Your task to perform on an android device: Go to Android settings Image 0: 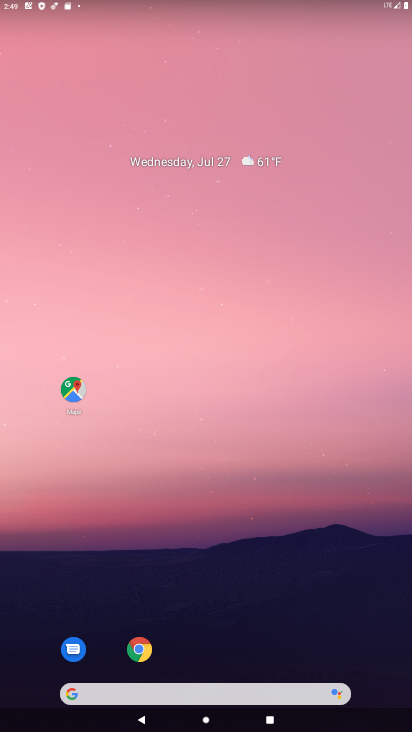
Step 0: drag from (176, 523) to (189, 141)
Your task to perform on an android device: Go to Android settings Image 1: 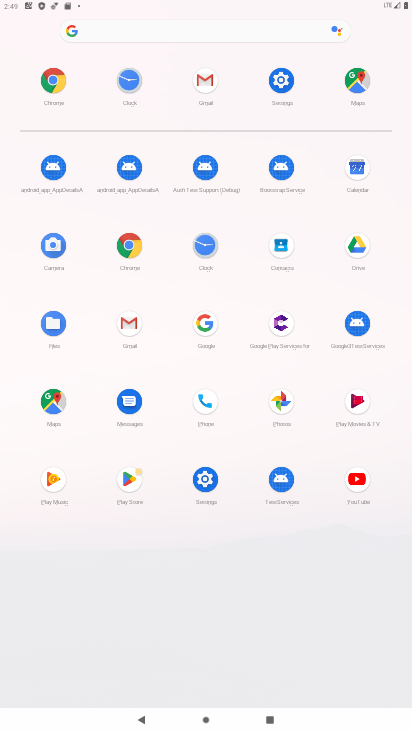
Step 1: click (284, 83)
Your task to perform on an android device: Go to Android settings Image 2: 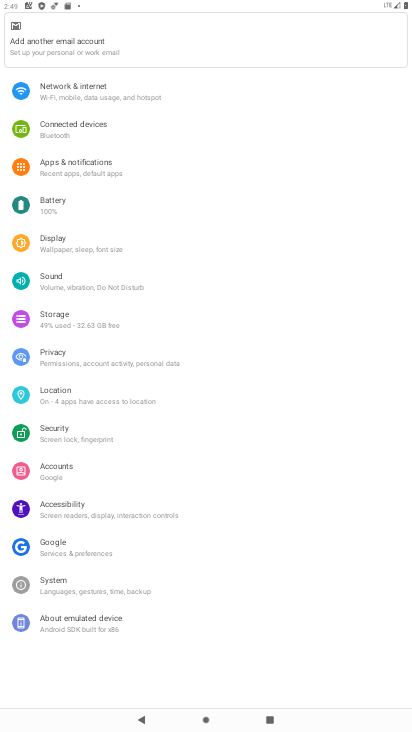
Step 2: click (82, 618)
Your task to perform on an android device: Go to Android settings Image 3: 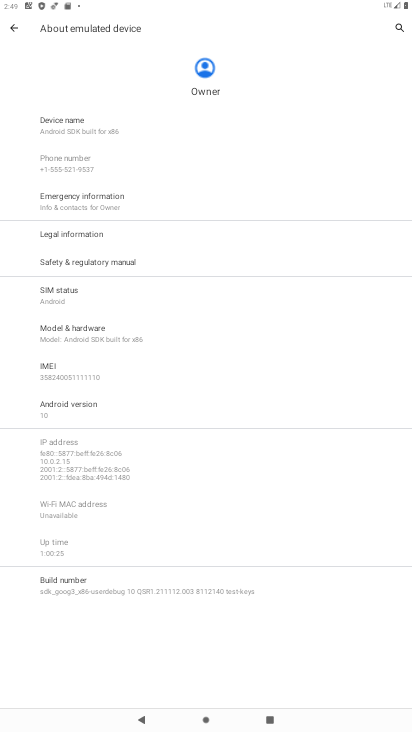
Step 3: click (121, 413)
Your task to perform on an android device: Go to Android settings Image 4: 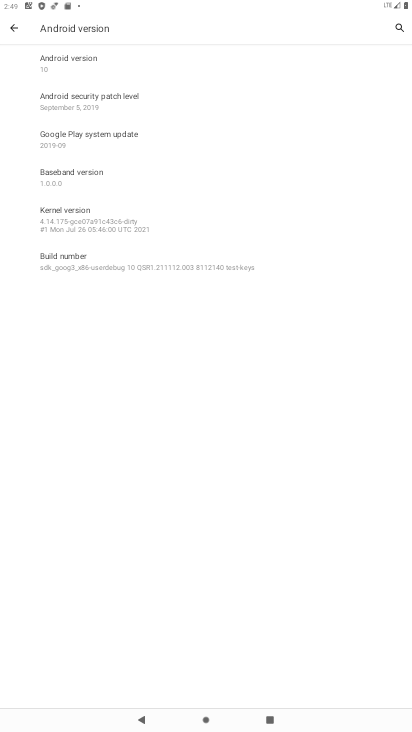
Step 4: task complete